Your task to perform on an android device: Open calendar and show me the third week of next month Image 0: 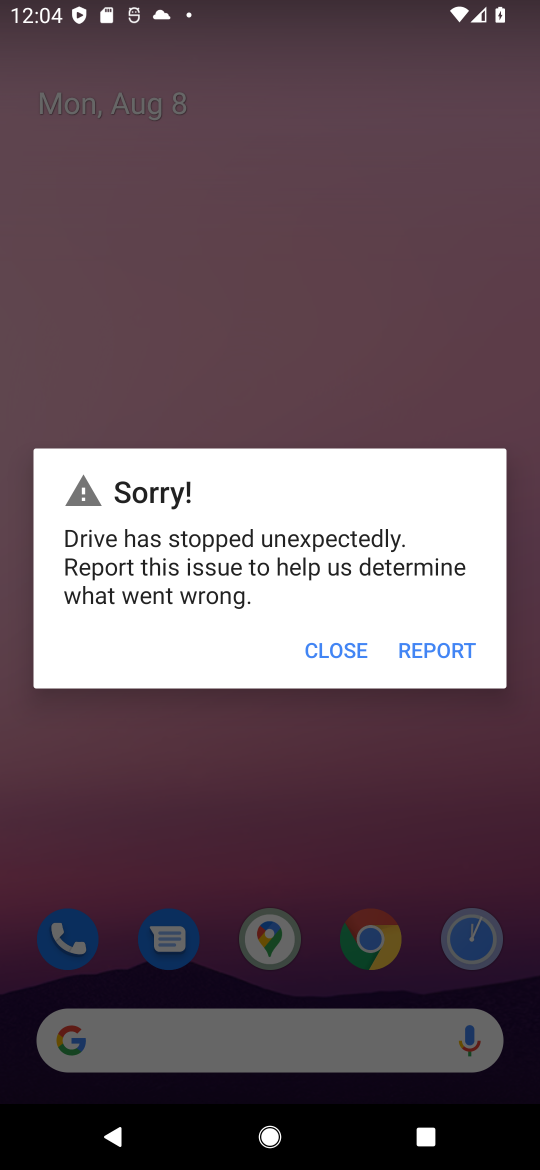
Step 0: press home button
Your task to perform on an android device: Open calendar and show me the third week of next month Image 1: 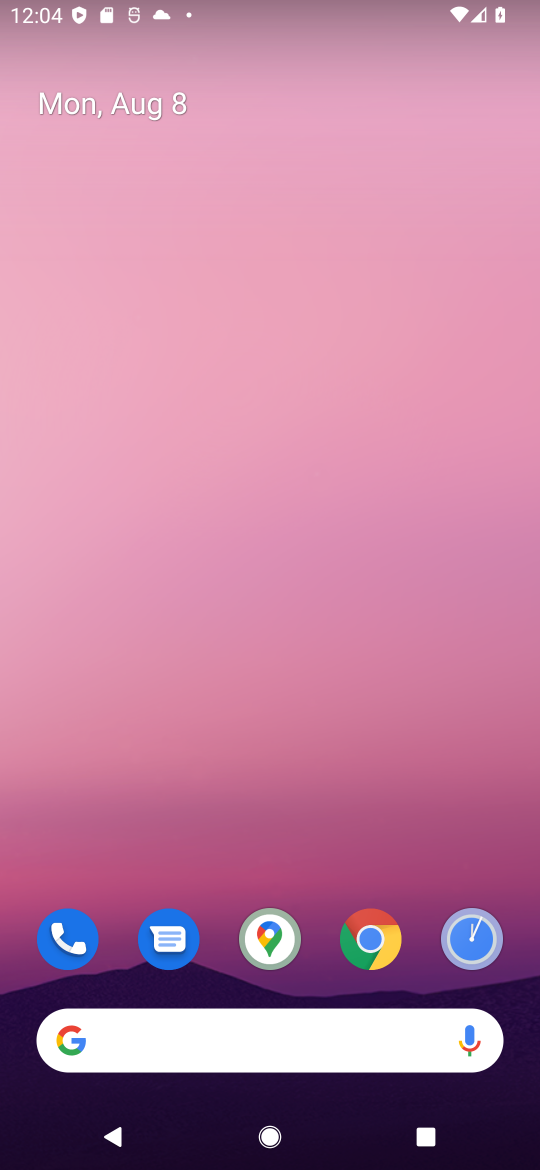
Step 1: drag from (245, 1024) to (248, 297)
Your task to perform on an android device: Open calendar and show me the third week of next month Image 2: 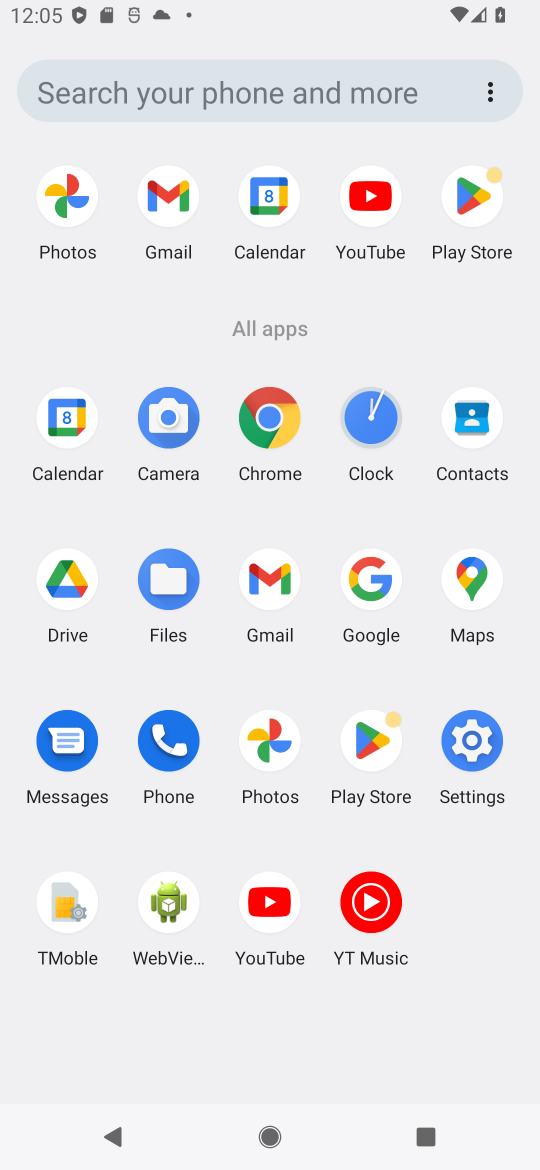
Step 2: click (68, 415)
Your task to perform on an android device: Open calendar and show me the third week of next month Image 3: 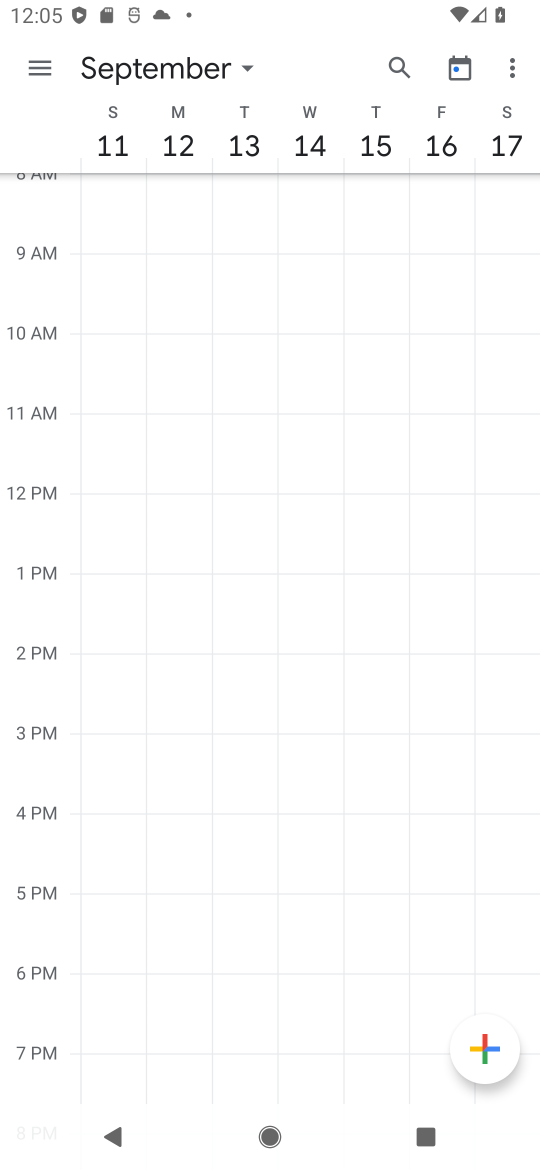
Step 3: click (464, 72)
Your task to perform on an android device: Open calendar and show me the third week of next month Image 4: 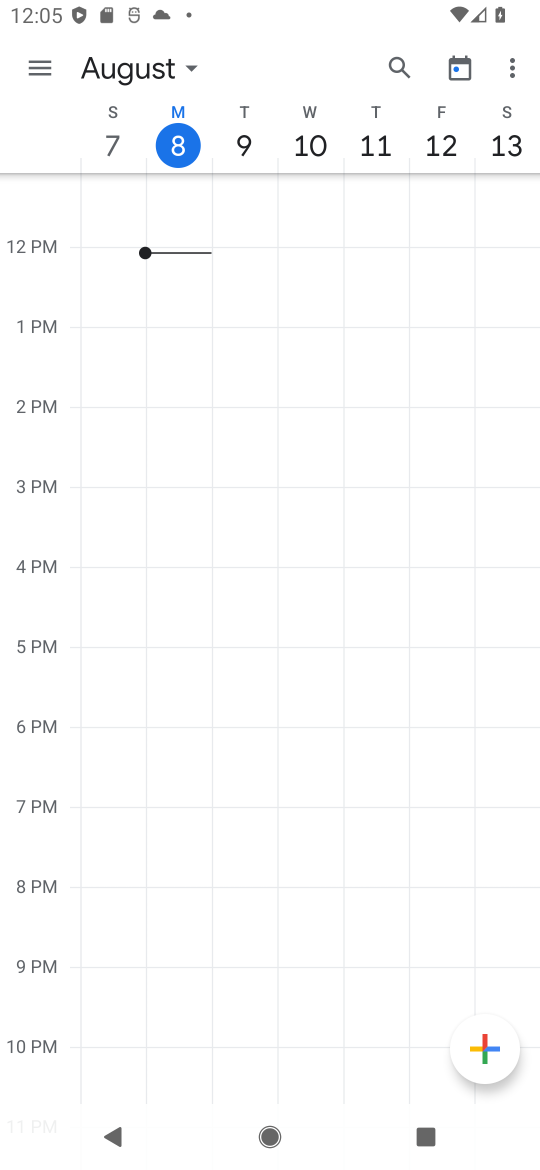
Step 4: click (190, 69)
Your task to perform on an android device: Open calendar and show me the third week of next month Image 5: 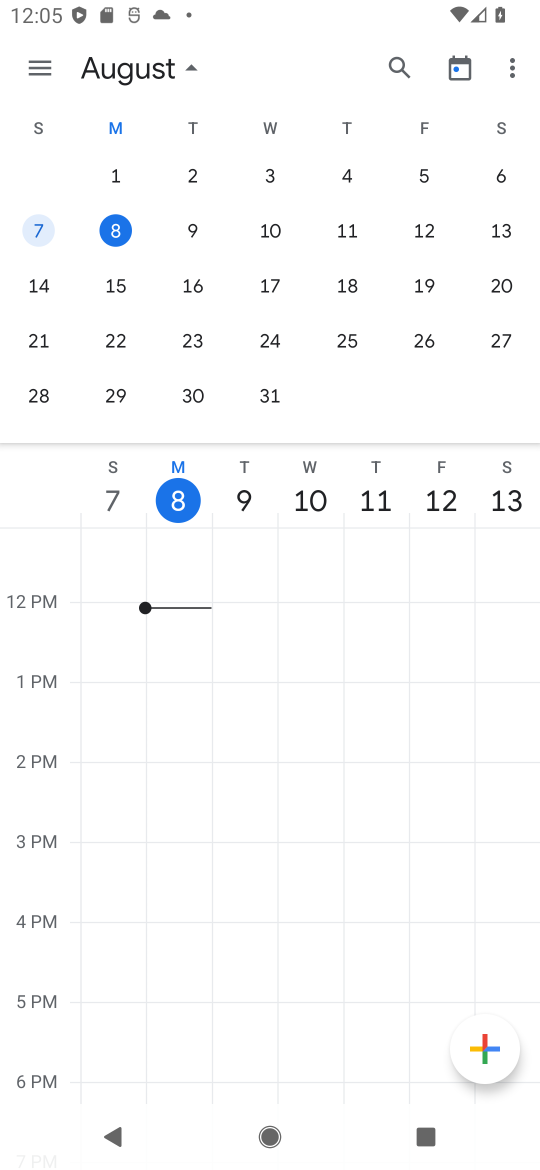
Step 5: drag from (496, 268) to (28, 317)
Your task to perform on an android device: Open calendar and show me the third week of next month Image 6: 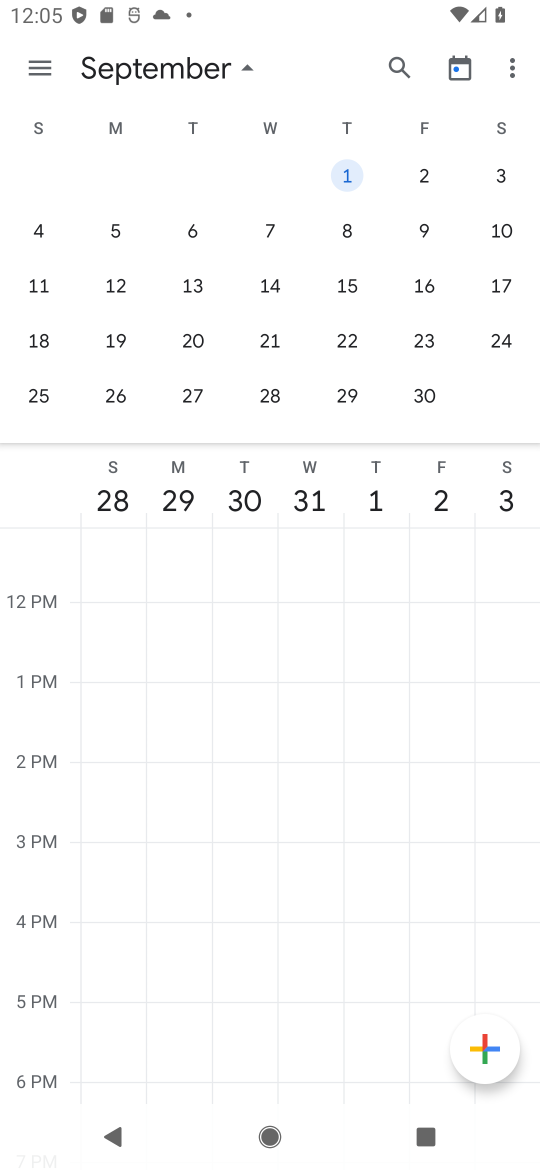
Step 6: click (111, 340)
Your task to perform on an android device: Open calendar and show me the third week of next month Image 7: 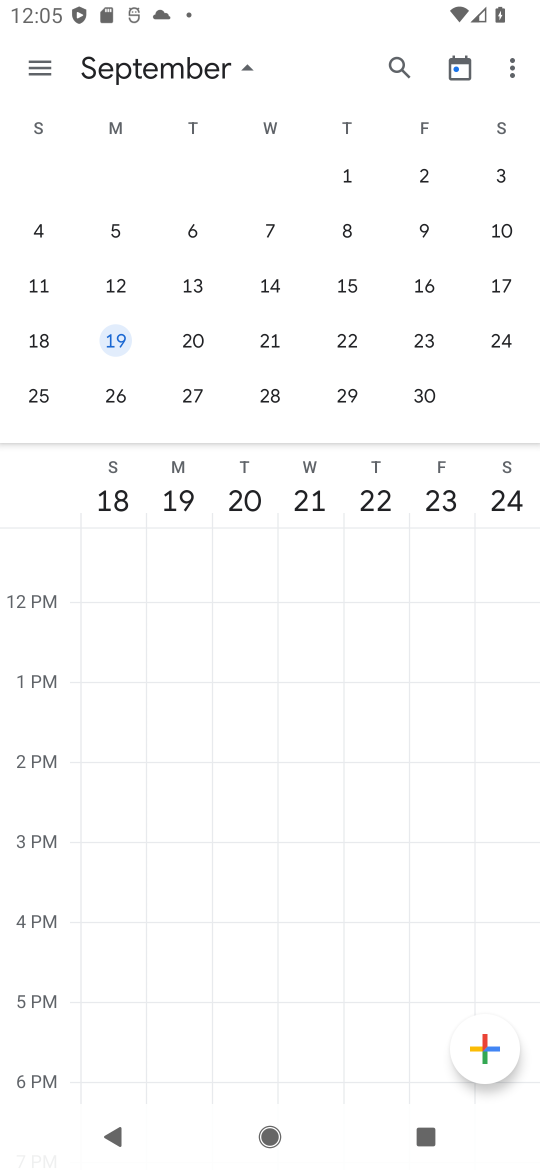
Step 7: click (53, 73)
Your task to perform on an android device: Open calendar and show me the third week of next month Image 8: 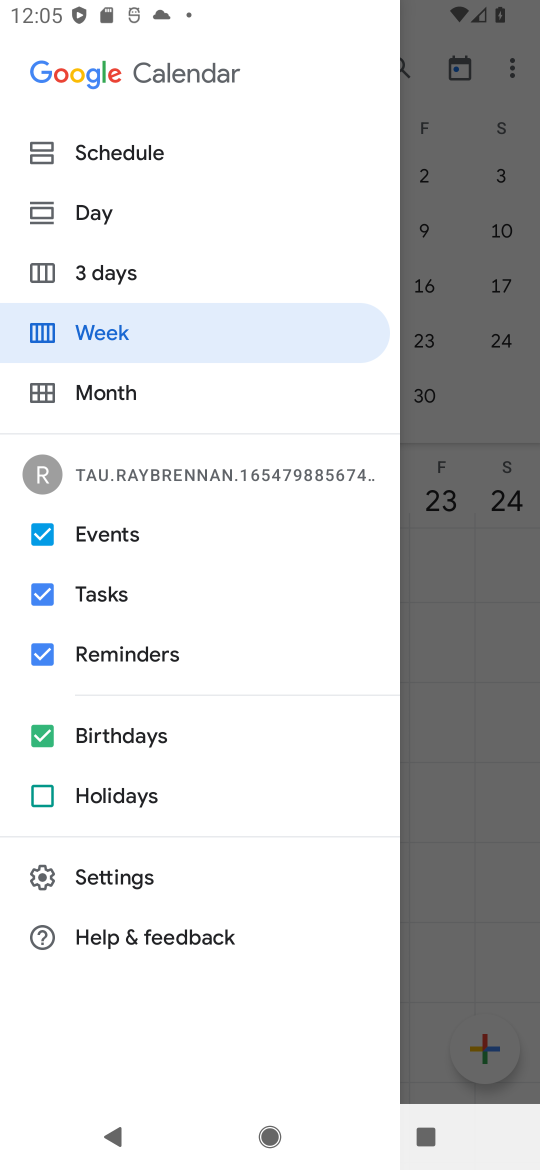
Step 8: click (122, 339)
Your task to perform on an android device: Open calendar and show me the third week of next month Image 9: 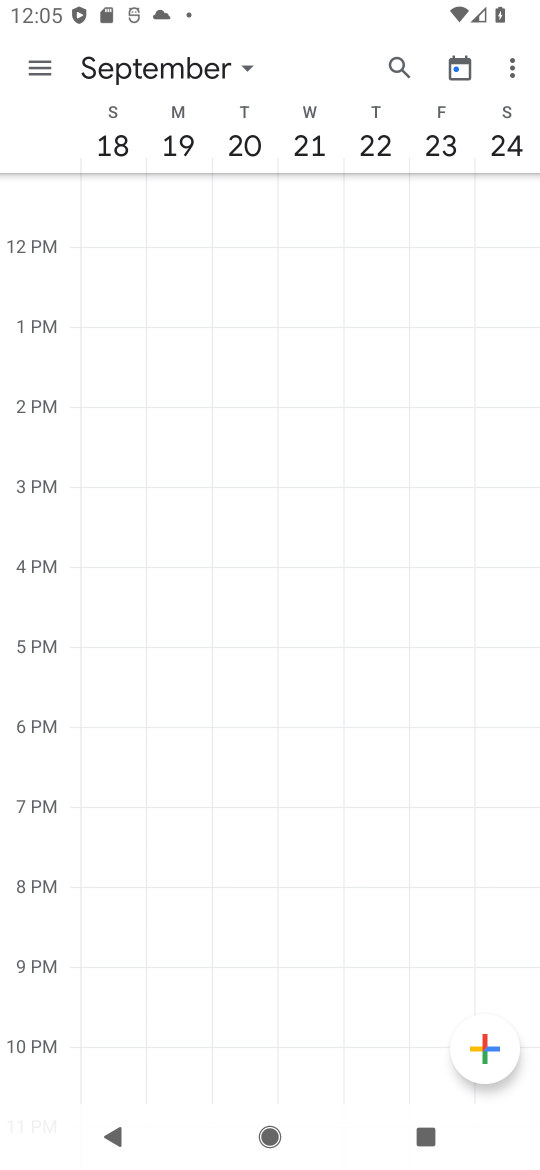
Step 9: task complete